Your task to perform on an android device: turn on bluetooth scan Image 0: 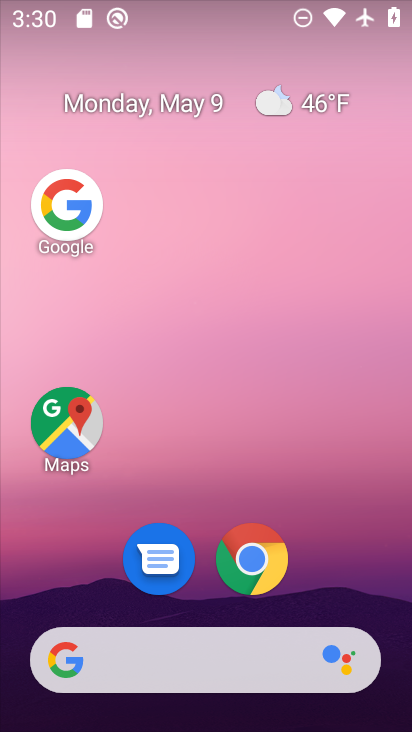
Step 0: drag from (316, 596) to (348, 64)
Your task to perform on an android device: turn on bluetooth scan Image 1: 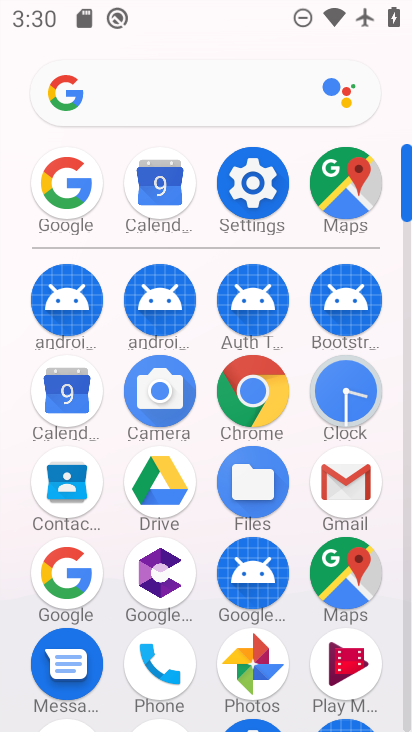
Step 1: click (265, 179)
Your task to perform on an android device: turn on bluetooth scan Image 2: 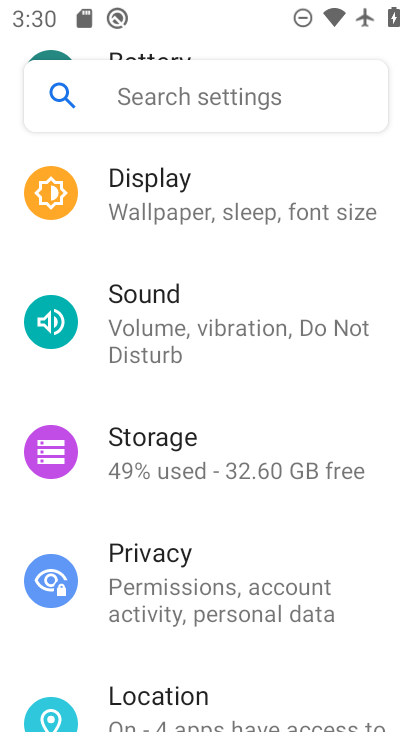
Step 2: click (272, 675)
Your task to perform on an android device: turn on bluetooth scan Image 3: 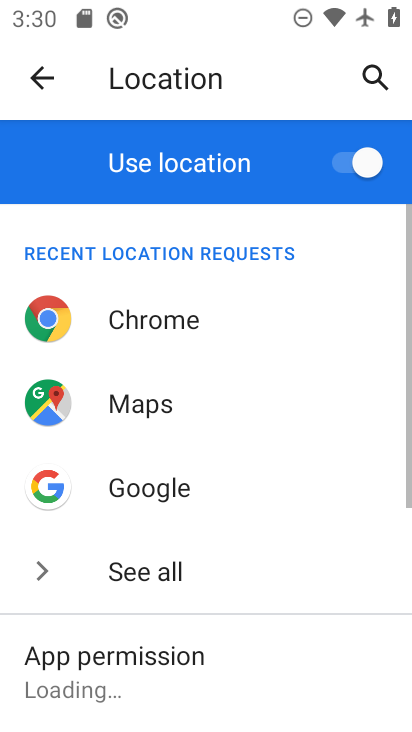
Step 3: drag from (298, 507) to (282, 198)
Your task to perform on an android device: turn on bluetooth scan Image 4: 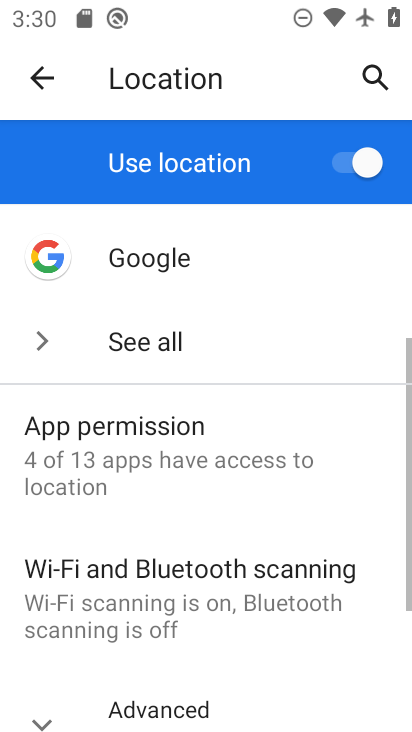
Step 4: click (294, 589)
Your task to perform on an android device: turn on bluetooth scan Image 5: 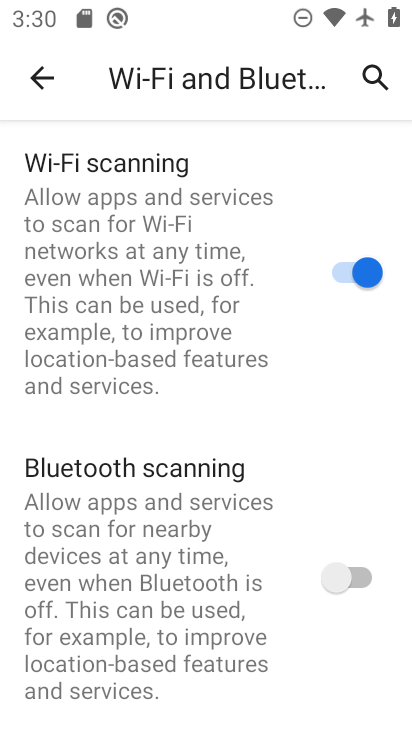
Step 5: click (328, 586)
Your task to perform on an android device: turn on bluetooth scan Image 6: 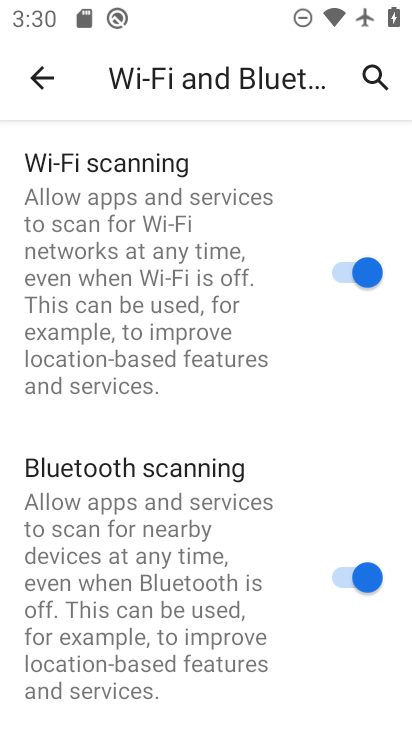
Step 6: task complete